Your task to perform on an android device: open the mobile data screen to see how much data has been used Image 0: 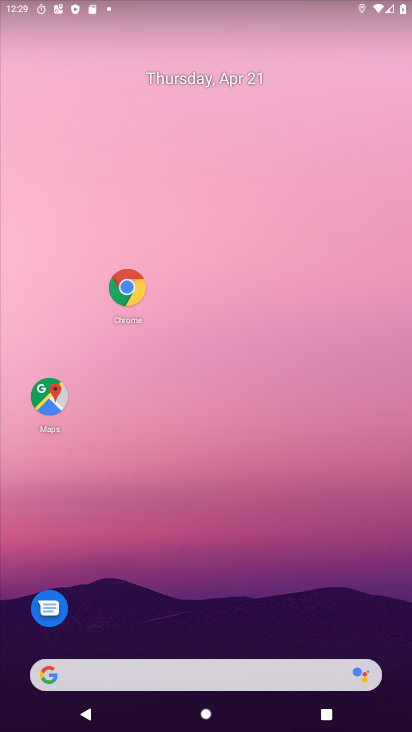
Step 0: drag from (197, 501) to (190, 85)
Your task to perform on an android device: open the mobile data screen to see how much data has been used Image 1: 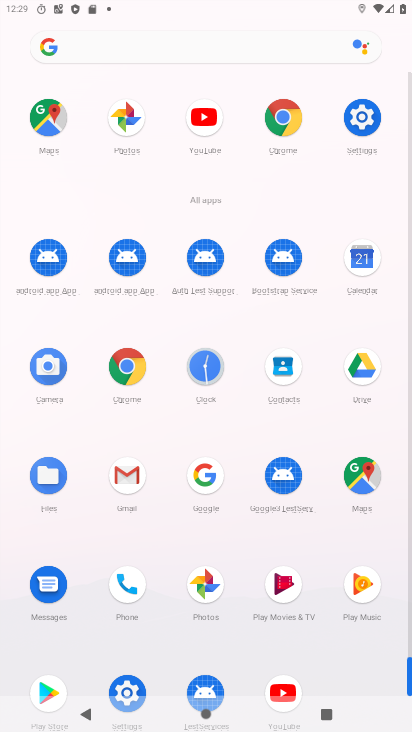
Step 1: click (358, 135)
Your task to perform on an android device: open the mobile data screen to see how much data has been used Image 2: 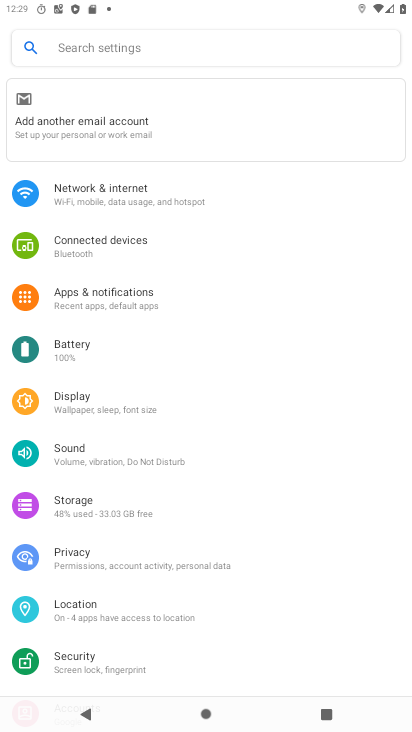
Step 2: click (131, 200)
Your task to perform on an android device: open the mobile data screen to see how much data has been used Image 3: 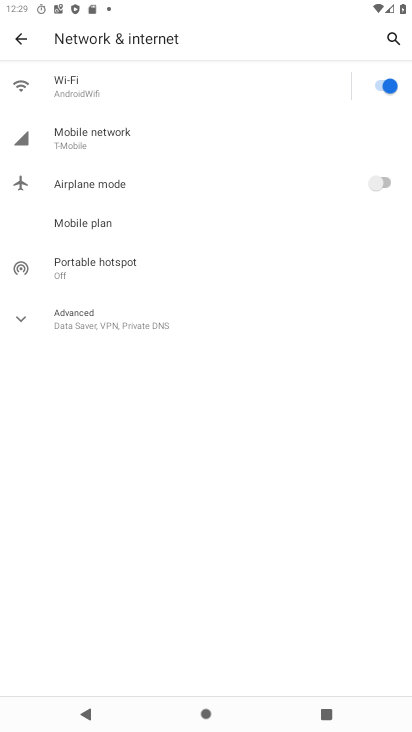
Step 3: click (79, 133)
Your task to perform on an android device: open the mobile data screen to see how much data has been used Image 4: 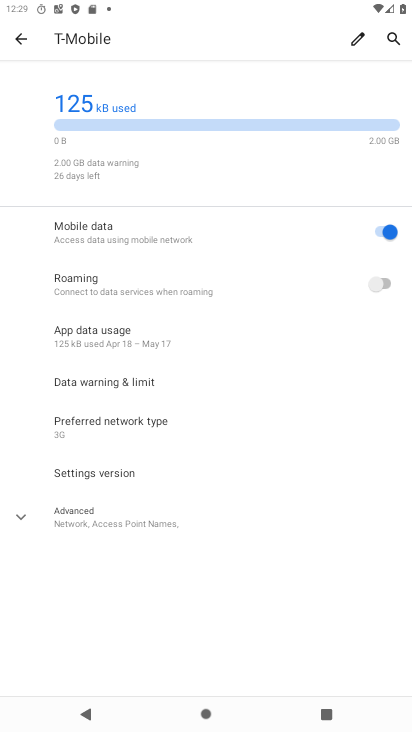
Step 4: click (98, 342)
Your task to perform on an android device: open the mobile data screen to see how much data has been used Image 5: 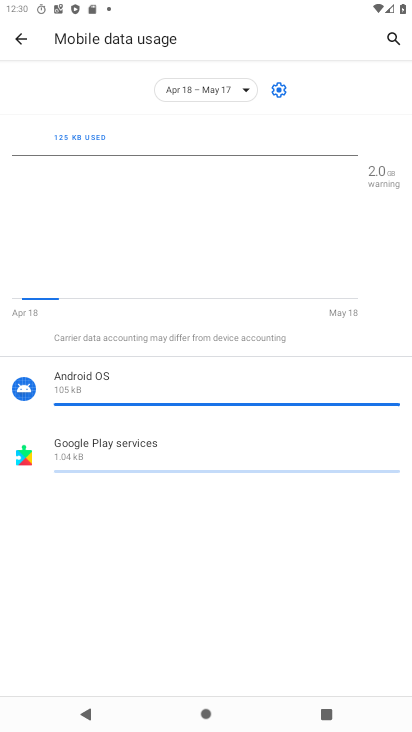
Step 5: task complete